Your task to perform on an android device: Go to battery settings Image 0: 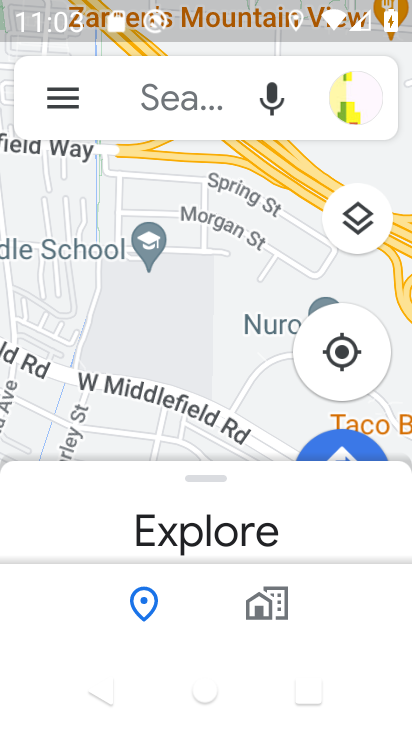
Step 0: press home button
Your task to perform on an android device: Go to battery settings Image 1: 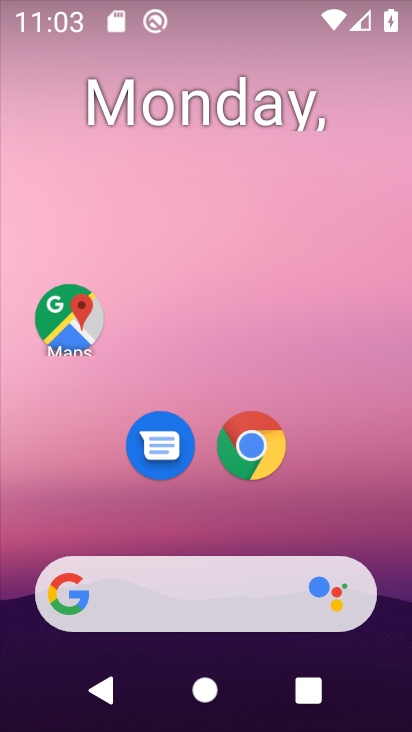
Step 1: drag from (187, 544) to (231, 269)
Your task to perform on an android device: Go to battery settings Image 2: 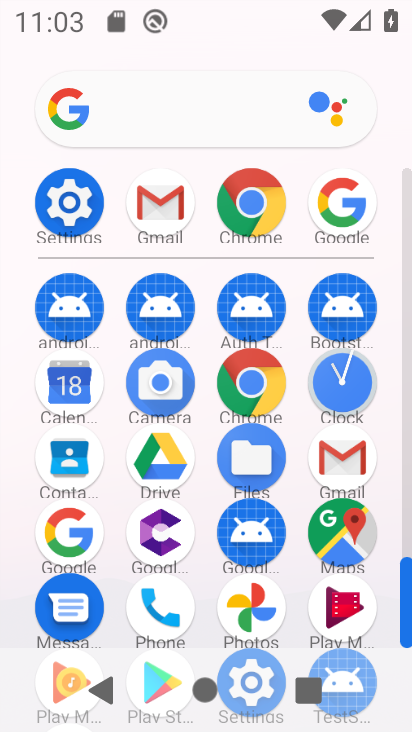
Step 2: click (83, 214)
Your task to perform on an android device: Go to battery settings Image 3: 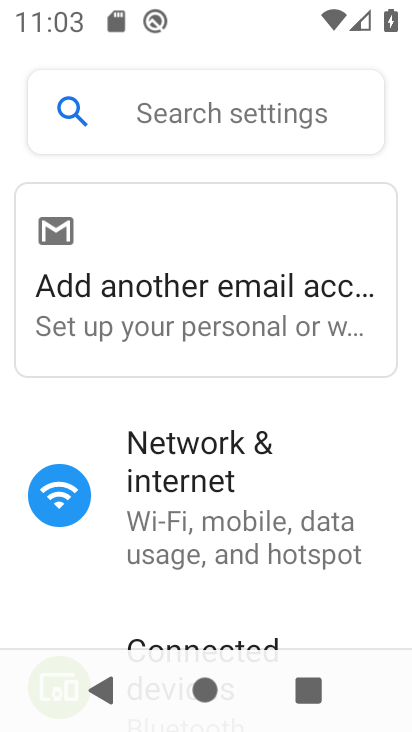
Step 3: drag from (271, 566) to (238, 241)
Your task to perform on an android device: Go to battery settings Image 4: 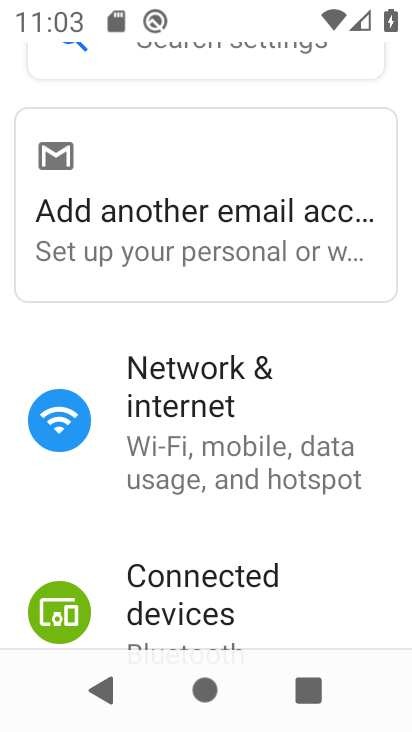
Step 4: drag from (221, 611) to (228, 247)
Your task to perform on an android device: Go to battery settings Image 5: 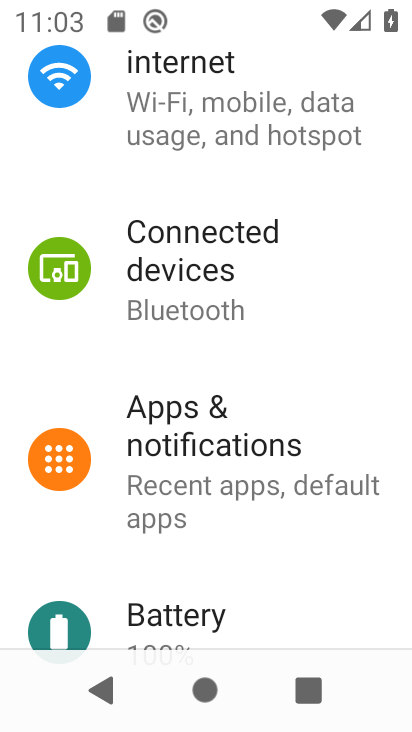
Step 5: click (160, 606)
Your task to perform on an android device: Go to battery settings Image 6: 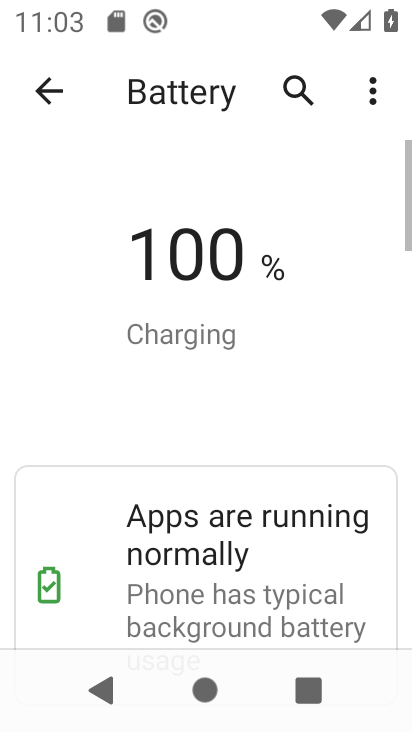
Step 6: drag from (251, 603) to (286, 185)
Your task to perform on an android device: Go to battery settings Image 7: 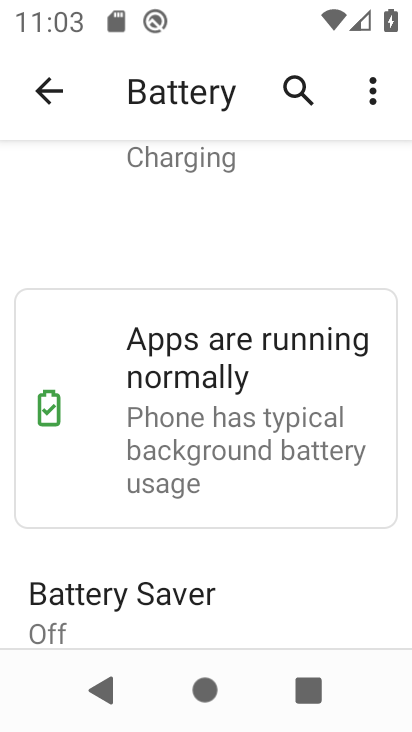
Step 7: click (376, 96)
Your task to perform on an android device: Go to battery settings Image 8: 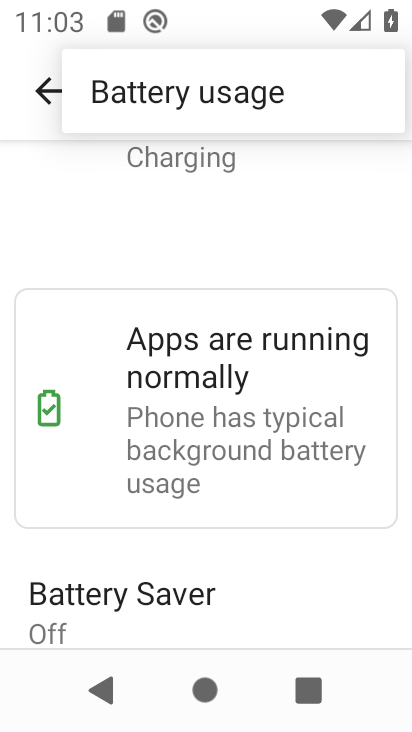
Step 8: click (286, 84)
Your task to perform on an android device: Go to battery settings Image 9: 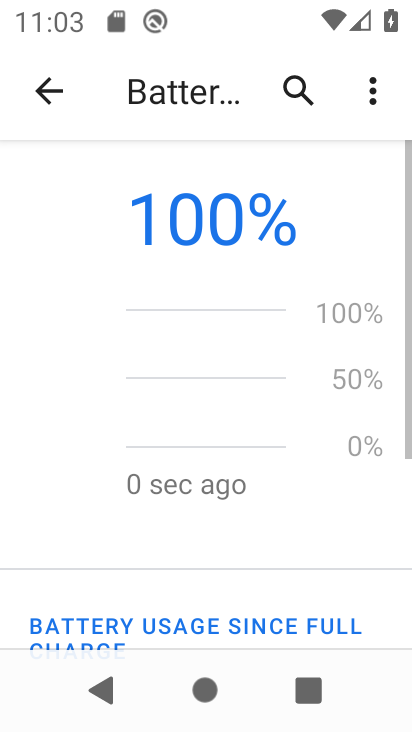
Step 9: task complete